Your task to perform on an android device: Search for "rayovac triple a" on newegg, select the first entry, and add it to the cart. Image 0: 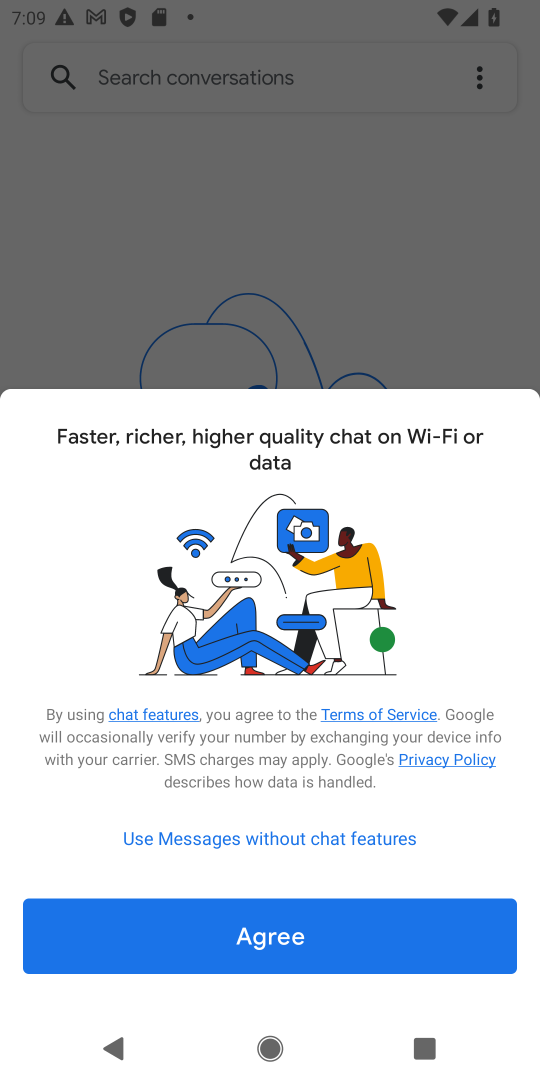
Step 0: press home button
Your task to perform on an android device: Search for "rayovac triple a" on newegg, select the first entry, and add it to the cart. Image 1: 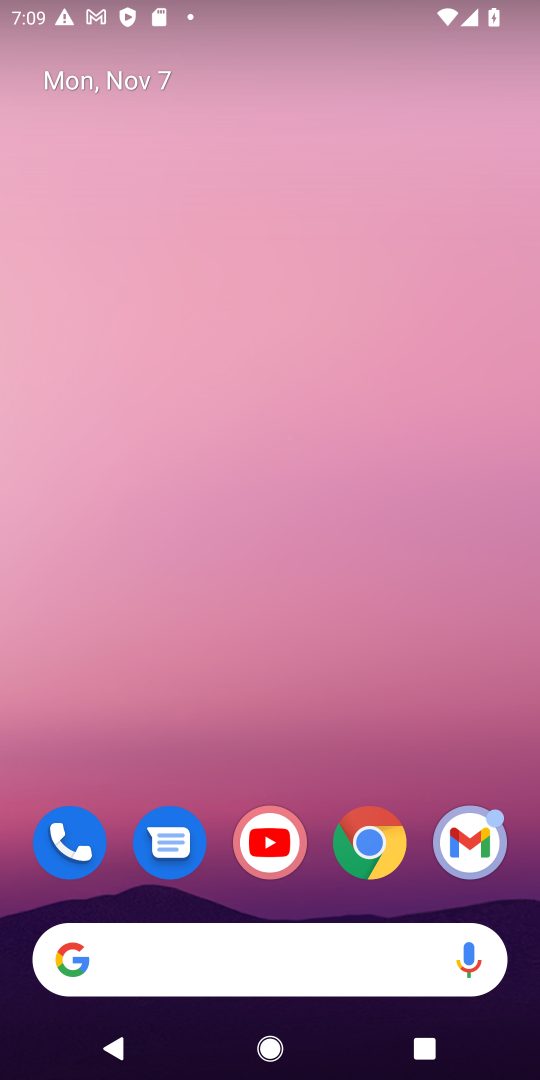
Step 1: drag from (193, 967) to (206, 5)
Your task to perform on an android device: Search for "rayovac triple a" on newegg, select the first entry, and add it to the cart. Image 2: 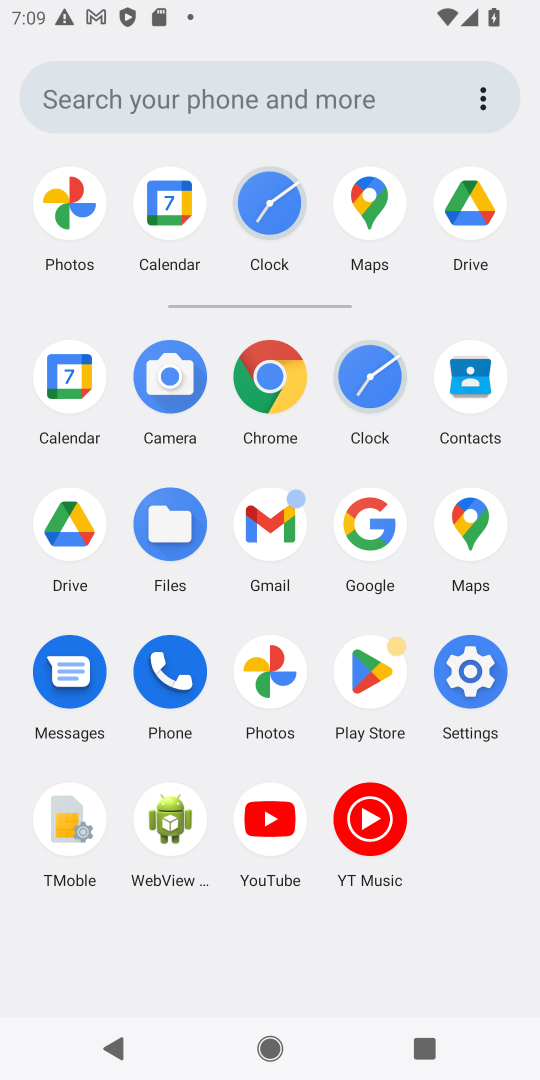
Step 2: click (262, 380)
Your task to perform on an android device: Search for "rayovac triple a" on newegg, select the first entry, and add it to the cart. Image 3: 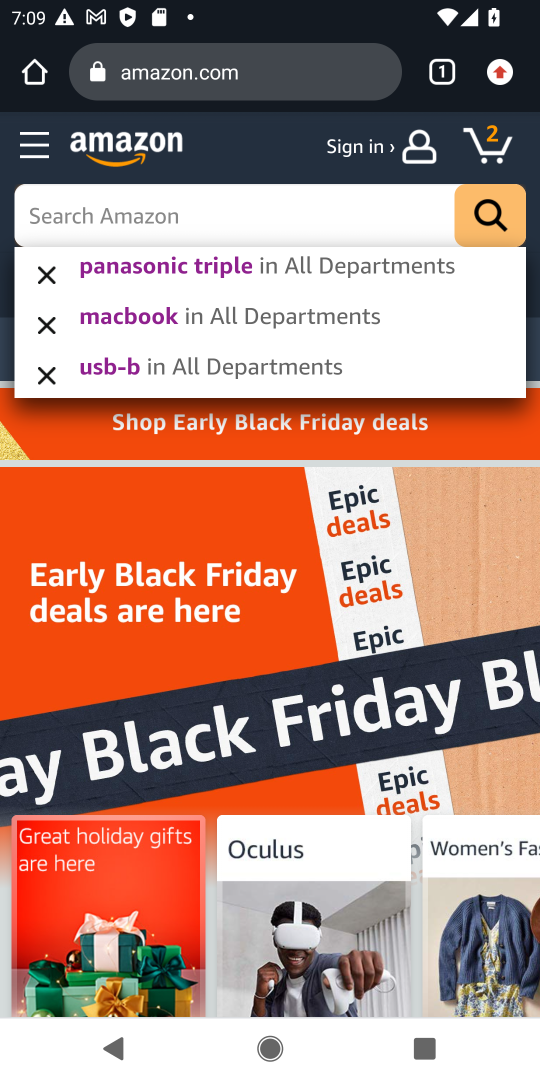
Step 3: click (199, 69)
Your task to perform on an android device: Search for "rayovac triple a" on newegg, select the first entry, and add it to the cart. Image 4: 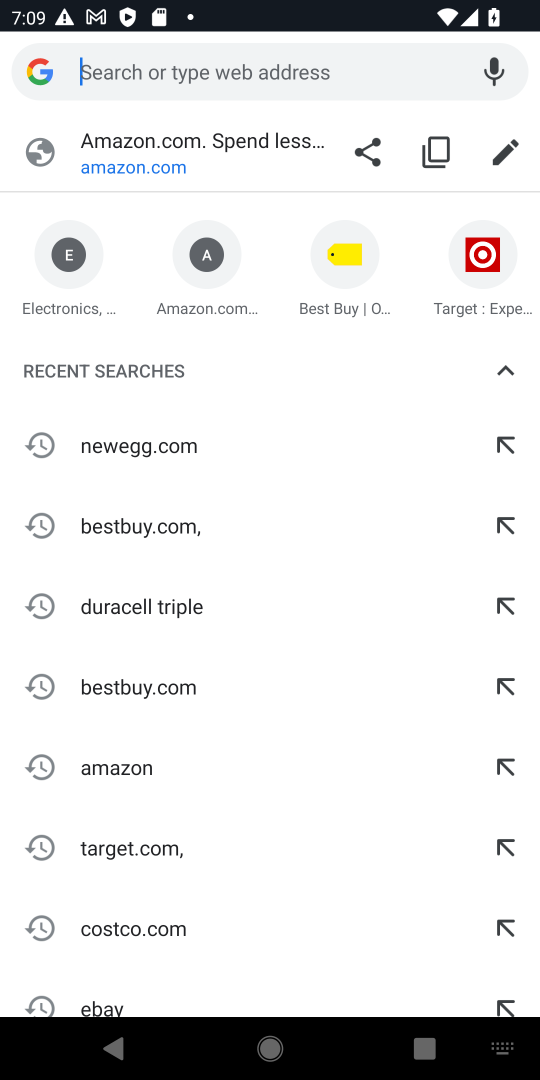
Step 4: type "newegg"
Your task to perform on an android device: Search for "rayovac triple a" on newegg, select the first entry, and add it to the cart. Image 5: 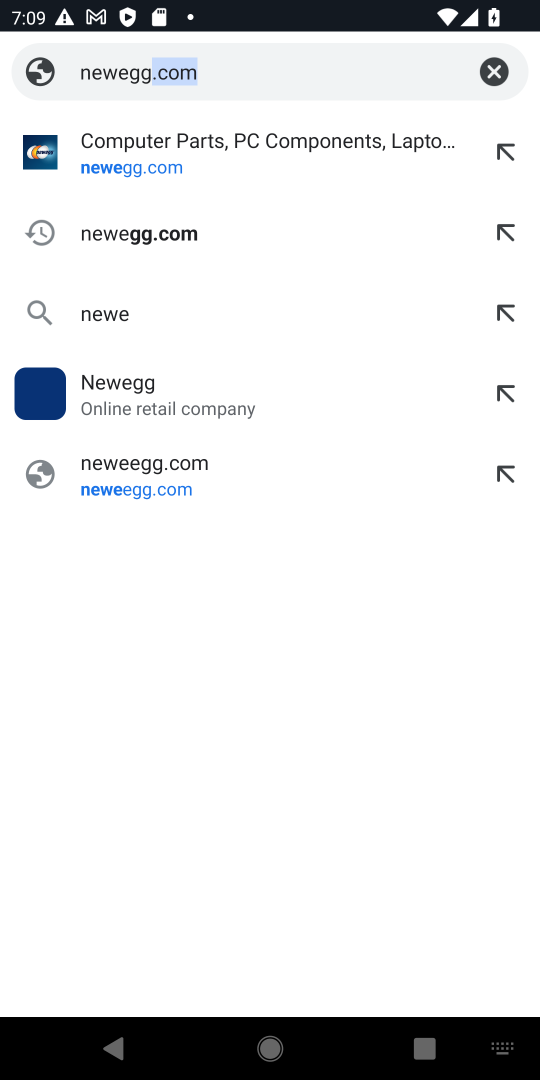
Step 5: press enter
Your task to perform on an android device: Search for "rayovac triple a" on newegg, select the first entry, and add it to the cart. Image 6: 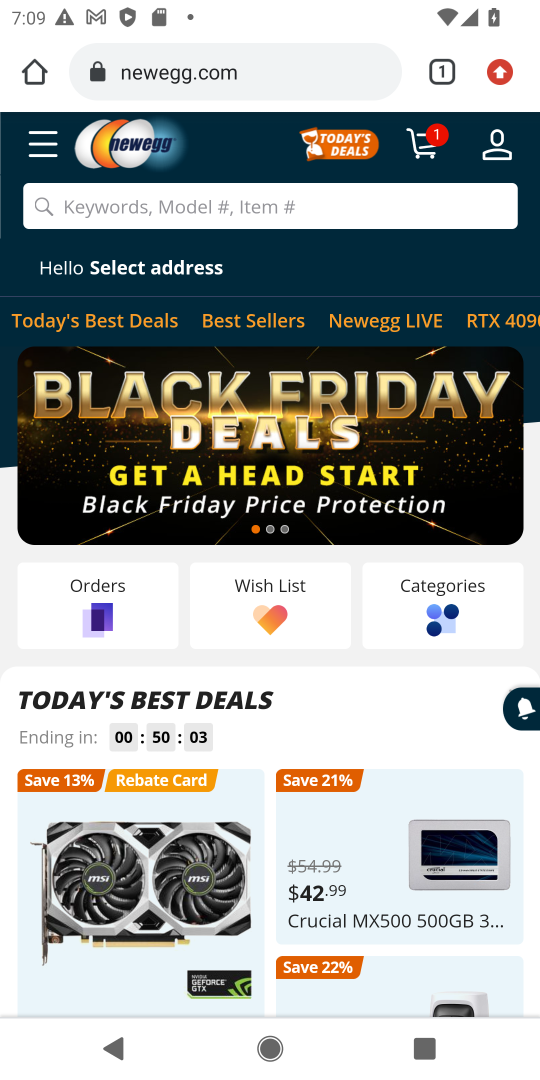
Step 6: click (223, 217)
Your task to perform on an android device: Search for "rayovac triple a" on newegg, select the first entry, and add it to the cart. Image 7: 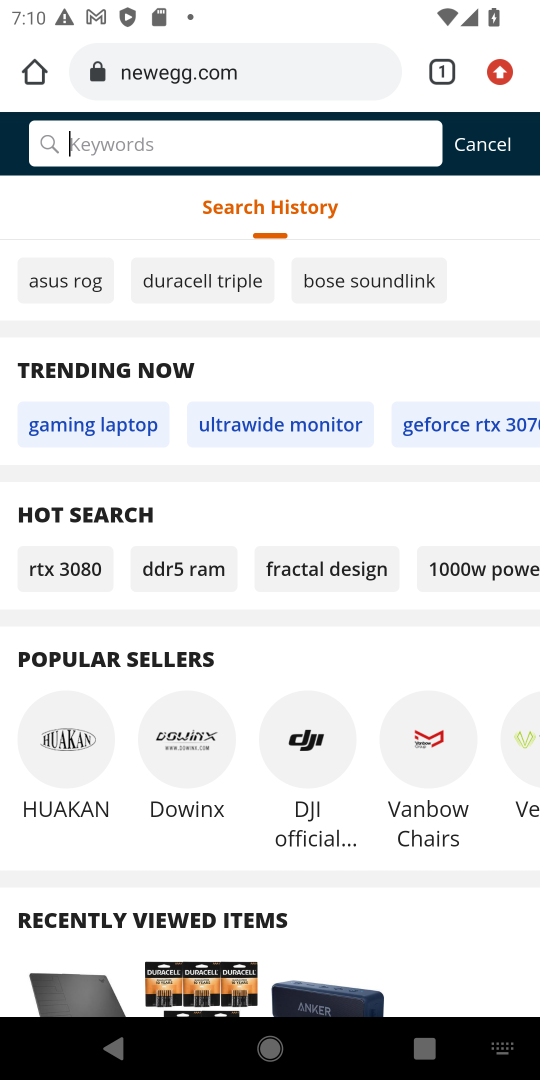
Step 7: type "rayovac triple"
Your task to perform on an android device: Search for "rayovac triple a" on newegg, select the first entry, and add it to the cart. Image 8: 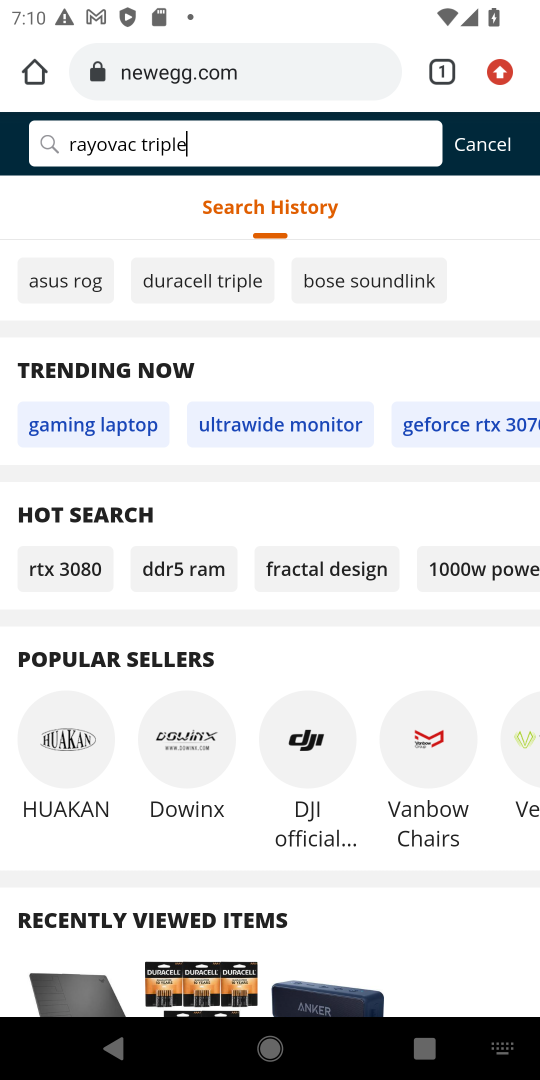
Step 8: press enter
Your task to perform on an android device: Search for "rayovac triple a" on newegg, select the first entry, and add it to the cart. Image 9: 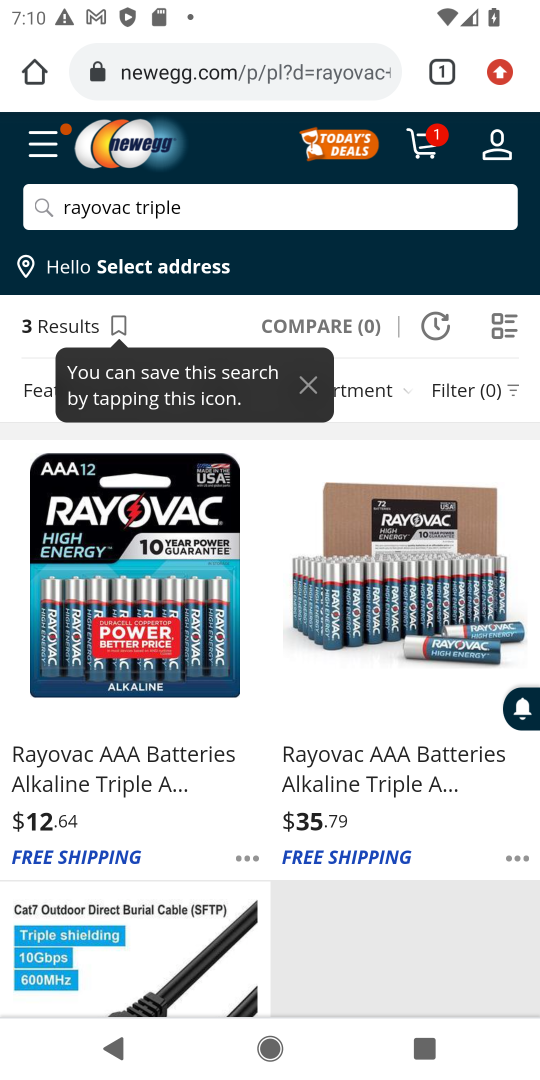
Step 9: click (104, 601)
Your task to perform on an android device: Search for "rayovac triple a" on newegg, select the first entry, and add it to the cart. Image 10: 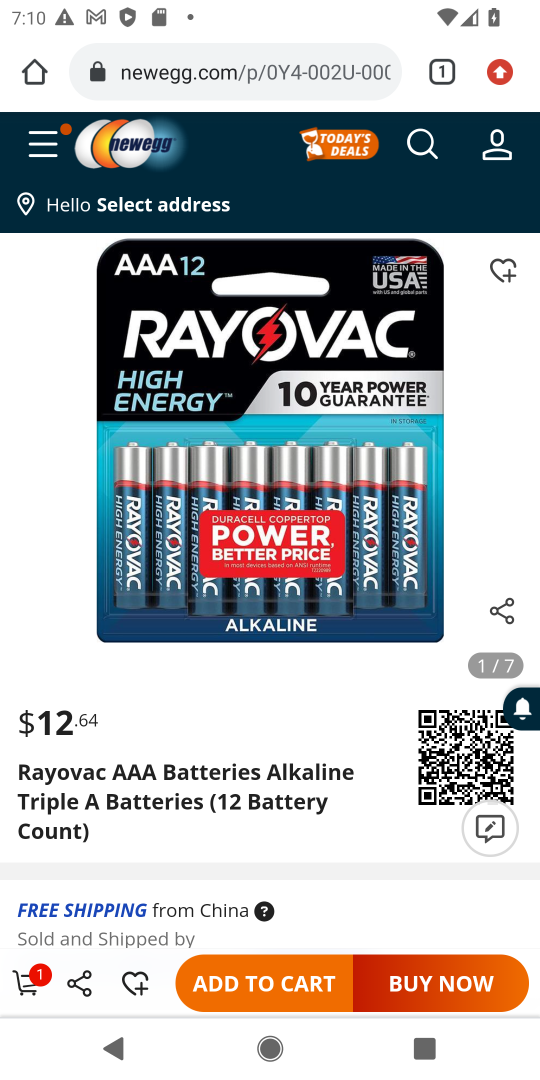
Step 10: click (267, 985)
Your task to perform on an android device: Search for "rayovac triple a" on newegg, select the first entry, and add it to the cart. Image 11: 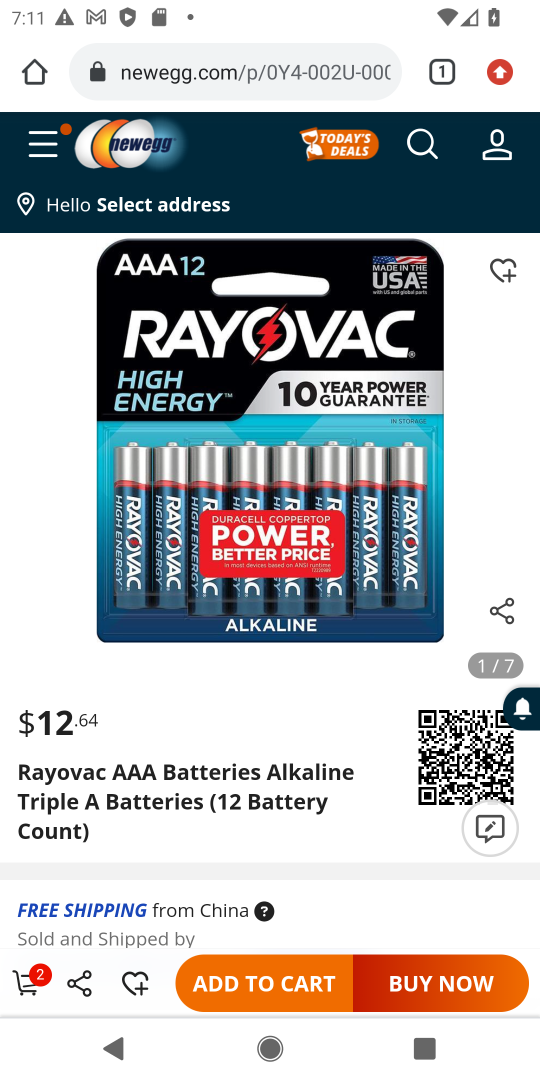
Step 11: task complete